Your task to perform on an android device: turn on javascript in the chrome app Image 0: 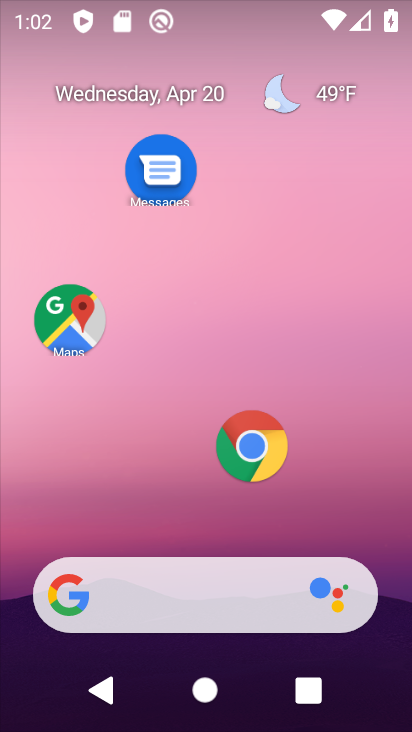
Step 0: click (253, 438)
Your task to perform on an android device: turn on javascript in the chrome app Image 1: 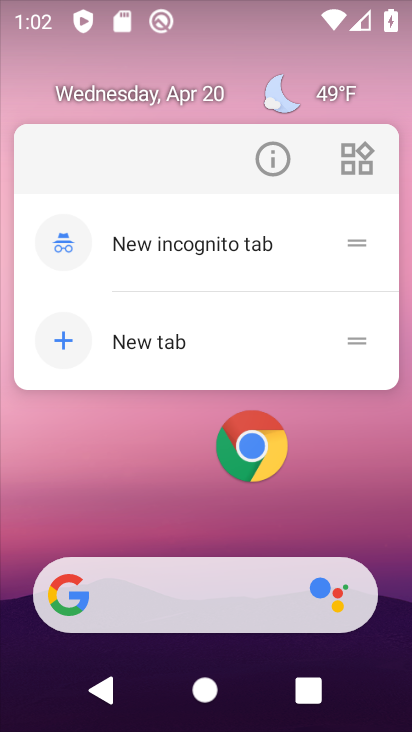
Step 1: click (249, 440)
Your task to perform on an android device: turn on javascript in the chrome app Image 2: 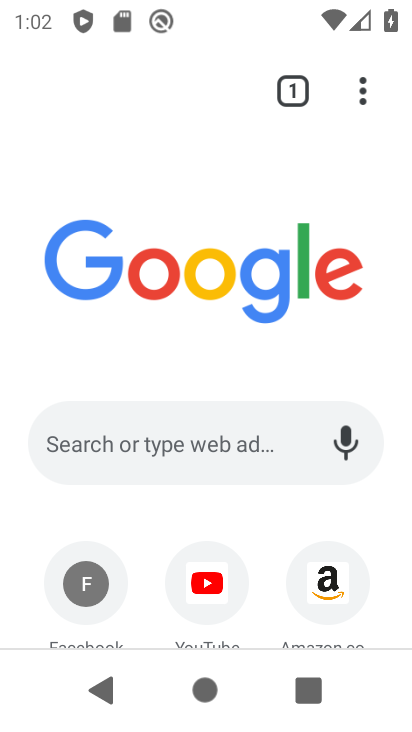
Step 2: drag from (189, 533) to (207, 57)
Your task to perform on an android device: turn on javascript in the chrome app Image 3: 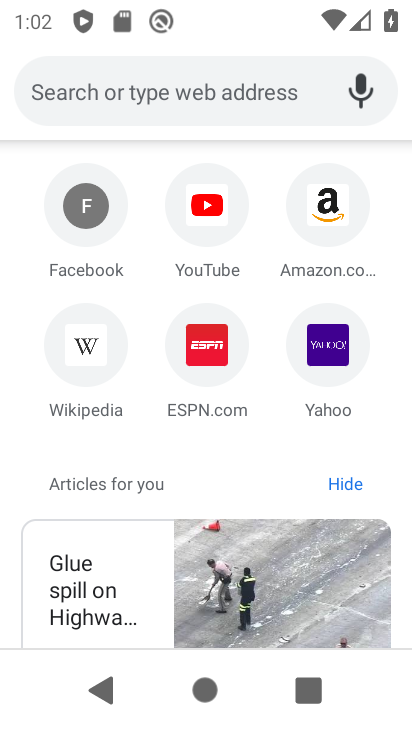
Step 3: drag from (237, 165) to (245, 679)
Your task to perform on an android device: turn on javascript in the chrome app Image 4: 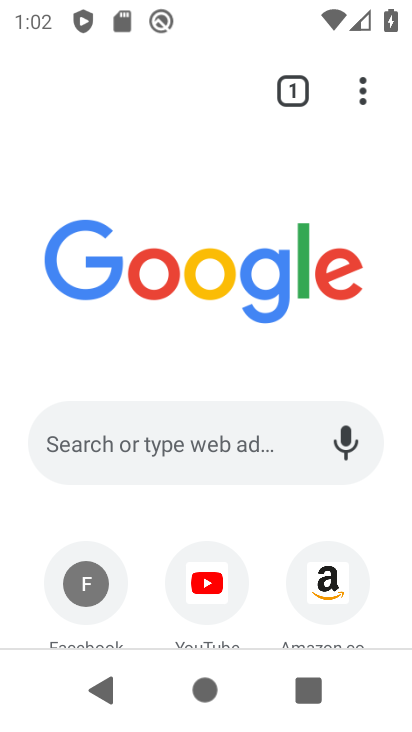
Step 4: click (363, 94)
Your task to perform on an android device: turn on javascript in the chrome app Image 5: 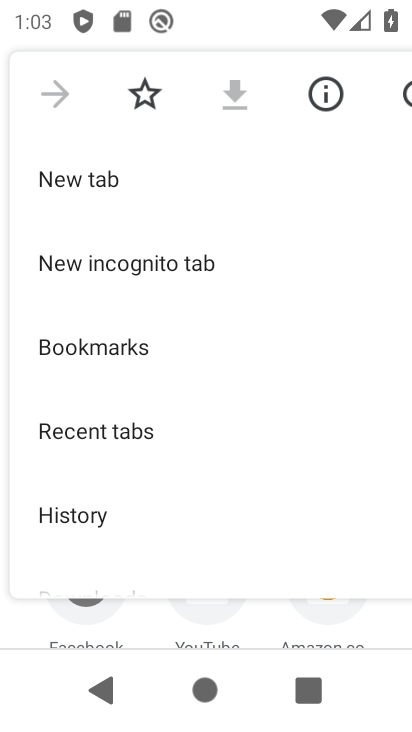
Step 5: drag from (192, 514) to (227, 80)
Your task to perform on an android device: turn on javascript in the chrome app Image 6: 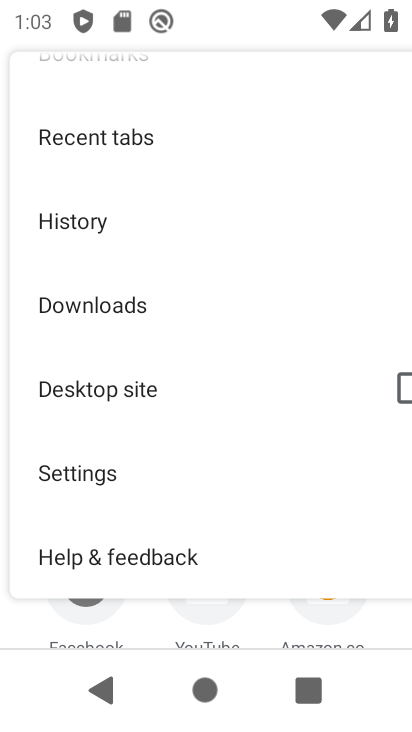
Step 6: click (133, 469)
Your task to perform on an android device: turn on javascript in the chrome app Image 7: 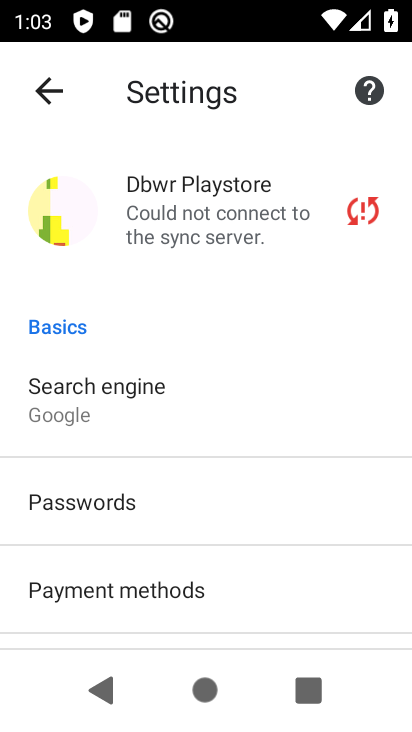
Step 7: drag from (230, 603) to (261, 140)
Your task to perform on an android device: turn on javascript in the chrome app Image 8: 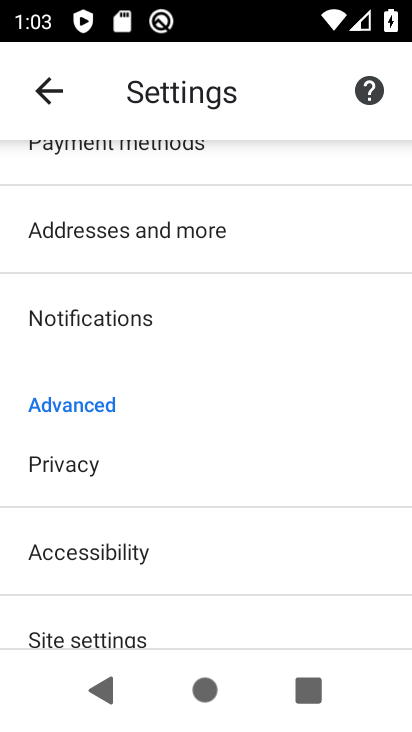
Step 8: click (179, 621)
Your task to perform on an android device: turn on javascript in the chrome app Image 9: 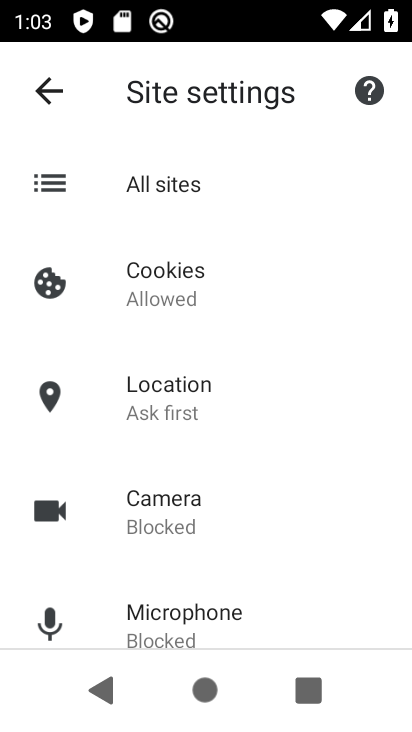
Step 9: drag from (266, 606) to (287, 147)
Your task to perform on an android device: turn on javascript in the chrome app Image 10: 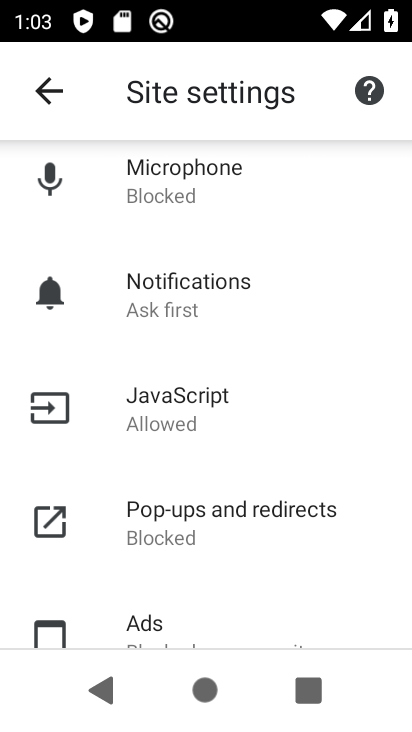
Step 10: click (207, 416)
Your task to perform on an android device: turn on javascript in the chrome app Image 11: 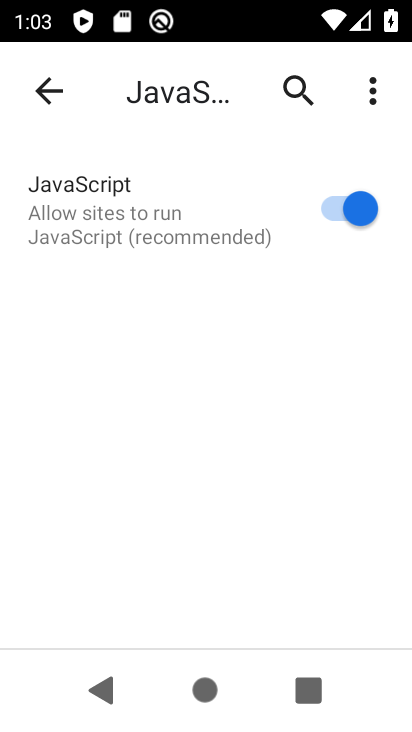
Step 11: task complete